Your task to perform on an android device: Go to wifi settings Image 0: 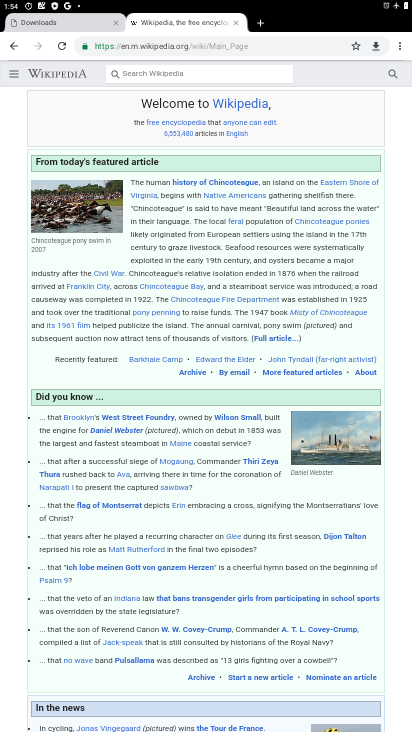
Step 0: press home button
Your task to perform on an android device: Go to wifi settings Image 1: 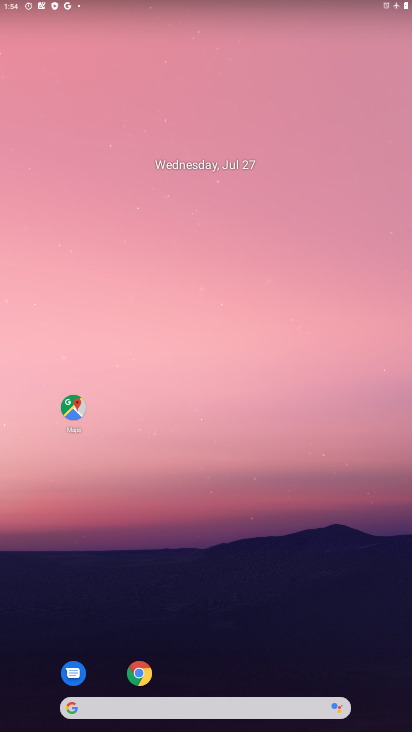
Step 1: drag from (250, 688) to (239, 96)
Your task to perform on an android device: Go to wifi settings Image 2: 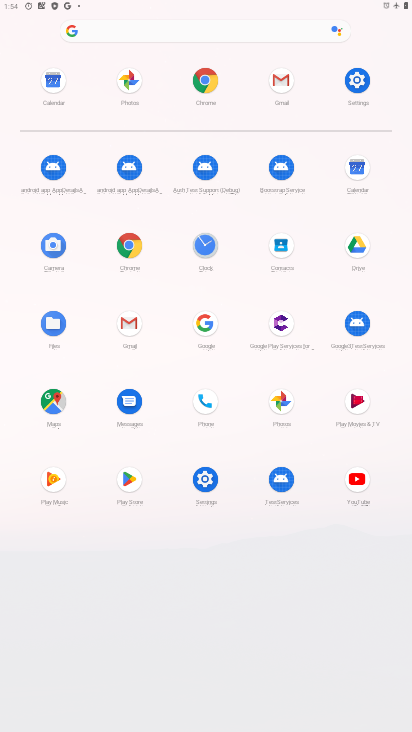
Step 2: click (377, 80)
Your task to perform on an android device: Go to wifi settings Image 3: 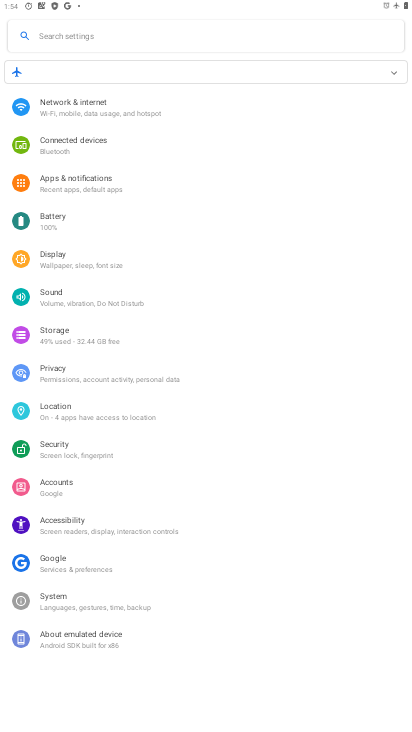
Step 3: click (73, 113)
Your task to perform on an android device: Go to wifi settings Image 4: 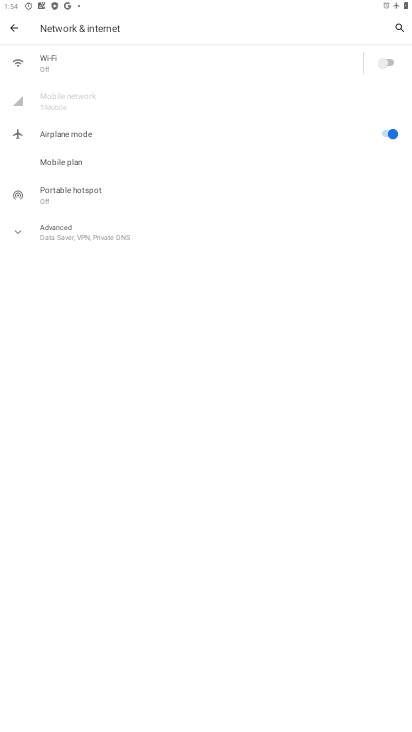
Step 4: click (20, 58)
Your task to perform on an android device: Go to wifi settings Image 5: 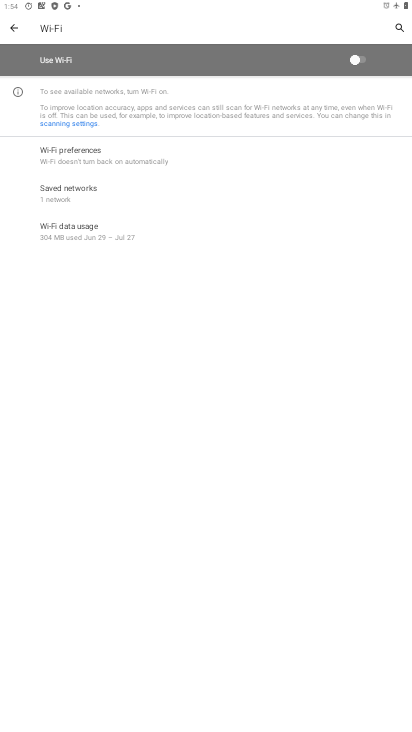
Step 5: task complete